Your task to perform on an android device: Set the phone to "Do not disturb". Image 0: 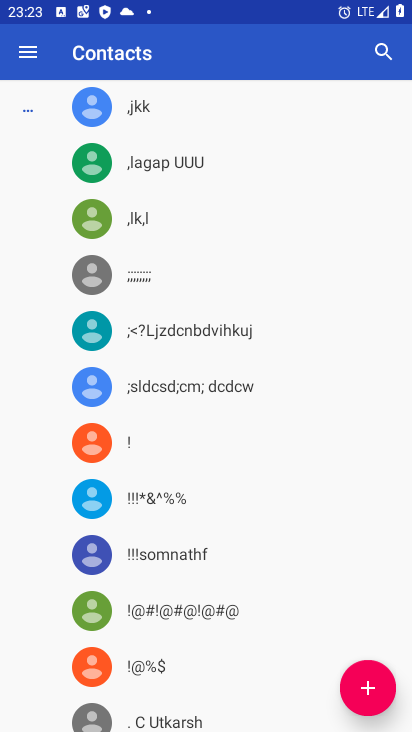
Step 0: press home button
Your task to perform on an android device: Set the phone to "Do not disturb". Image 1: 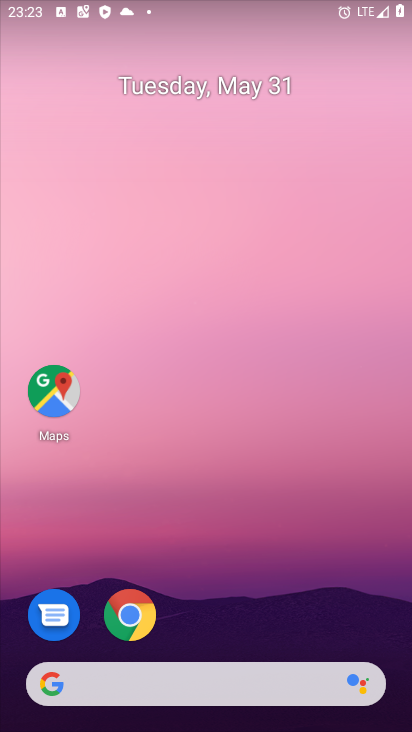
Step 1: drag from (364, 629) to (220, 8)
Your task to perform on an android device: Set the phone to "Do not disturb". Image 2: 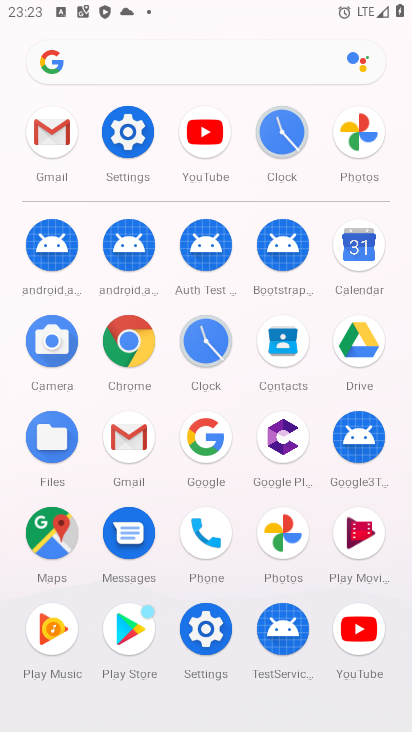
Step 2: click (207, 628)
Your task to perform on an android device: Set the phone to "Do not disturb". Image 3: 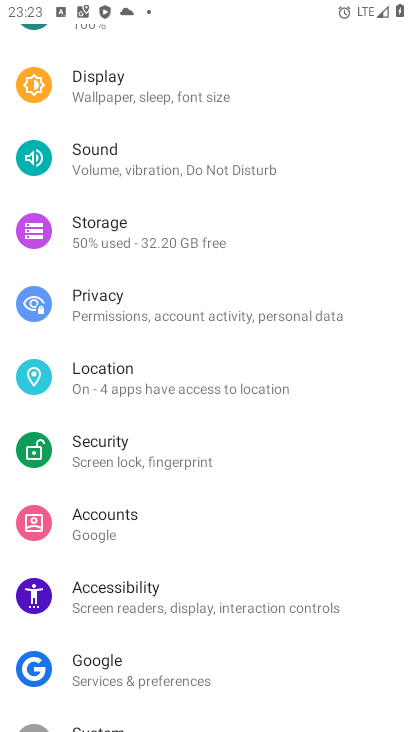
Step 3: click (125, 155)
Your task to perform on an android device: Set the phone to "Do not disturb". Image 4: 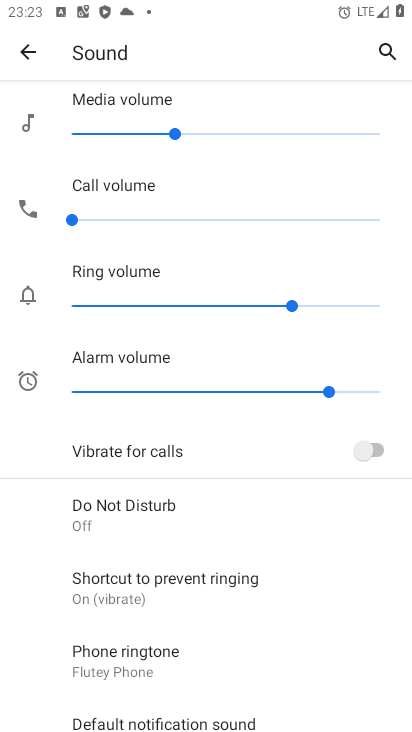
Step 4: click (118, 508)
Your task to perform on an android device: Set the phone to "Do not disturb". Image 5: 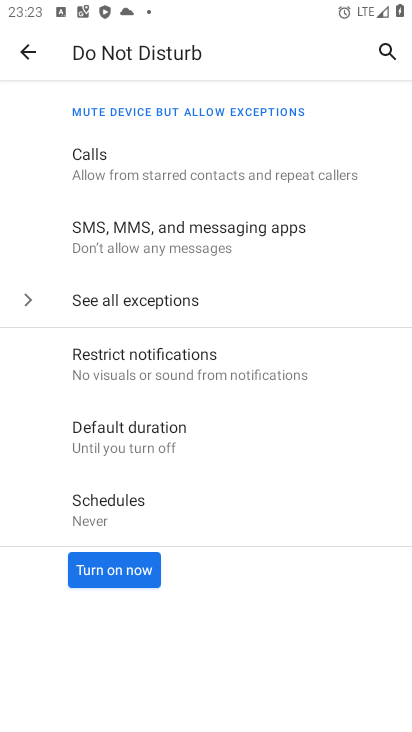
Step 5: click (114, 563)
Your task to perform on an android device: Set the phone to "Do not disturb". Image 6: 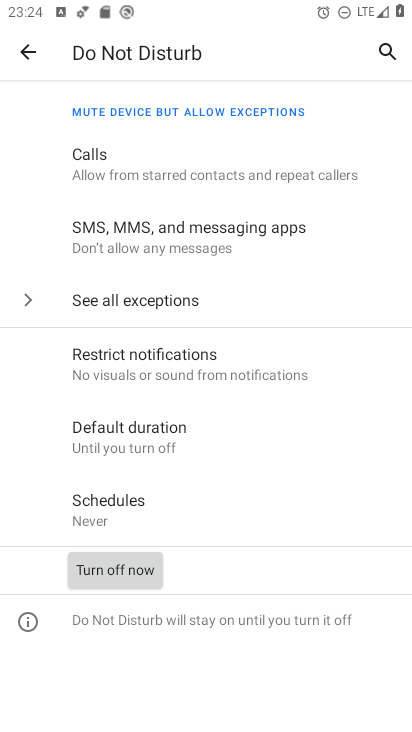
Step 6: task complete